Your task to perform on an android device: Open sound settings Image 0: 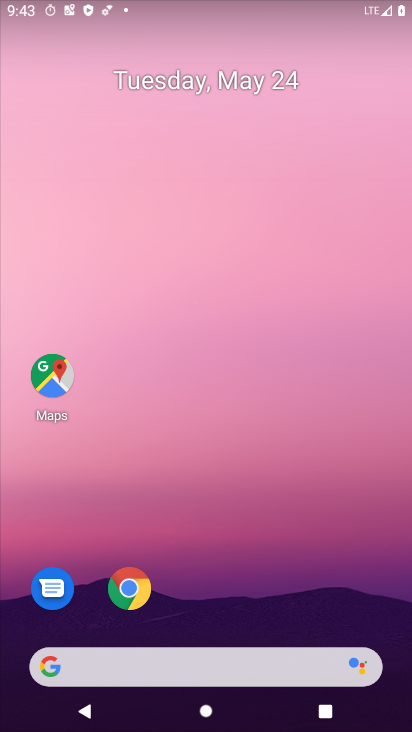
Step 0: drag from (229, 538) to (248, 37)
Your task to perform on an android device: Open sound settings Image 1: 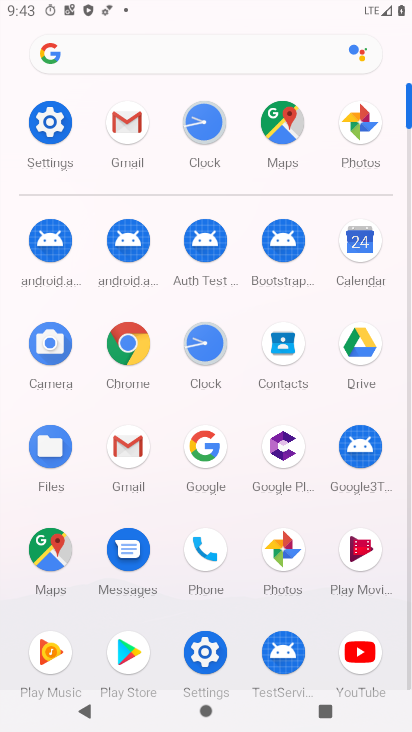
Step 1: click (51, 127)
Your task to perform on an android device: Open sound settings Image 2: 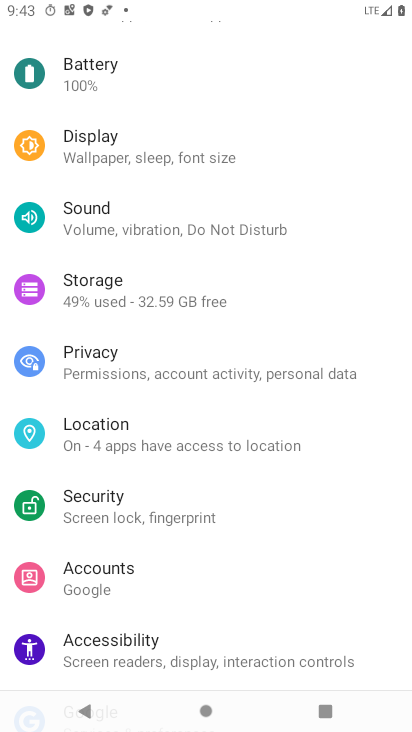
Step 2: click (143, 208)
Your task to perform on an android device: Open sound settings Image 3: 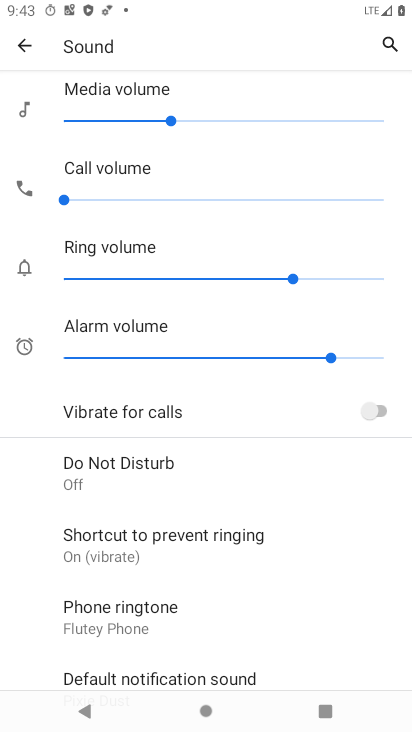
Step 3: task complete